Your task to perform on an android device: turn off location Image 0: 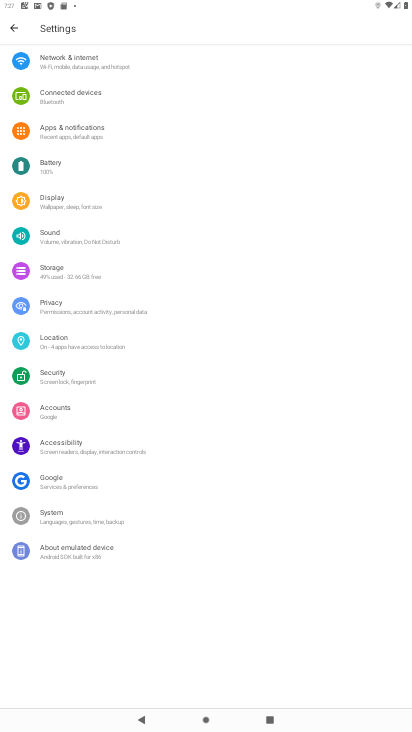
Step 0: drag from (207, 672) to (72, 237)
Your task to perform on an android device: turn off location Image 1: 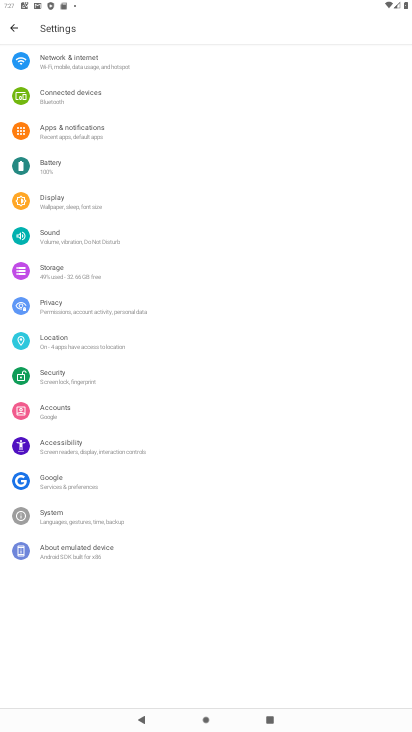
Step 1: click (61, 337)
Your task to perform on an android device: turn off location Image 2: 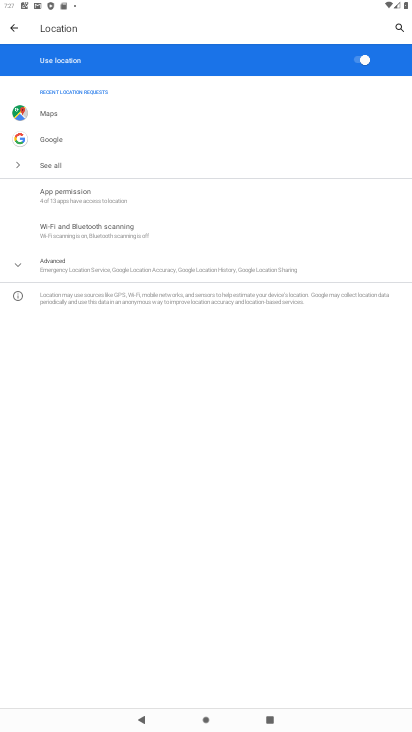
Step 2: click (354, 59)
Your task to perform on an android device: turn off location Image 3: 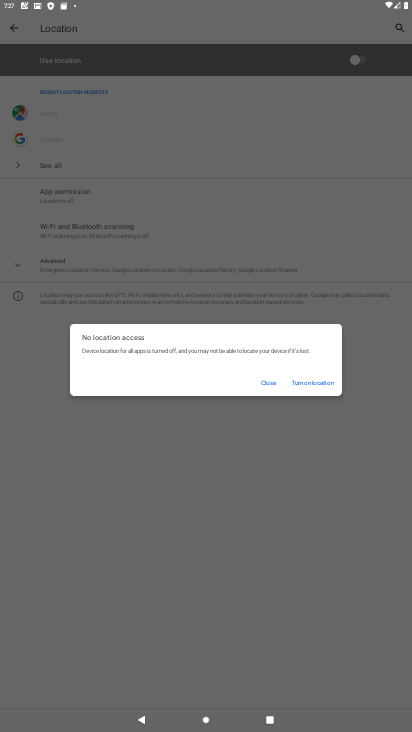
Step 3: click (268, 380)
Your task to perform on an android device: turn off location Image 4: 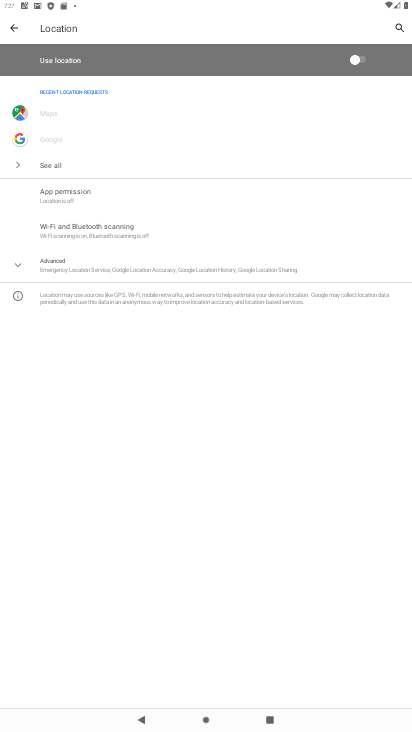
Step 4: task complete